Your task to perform on an android device: turn off airplane mode Image 0: 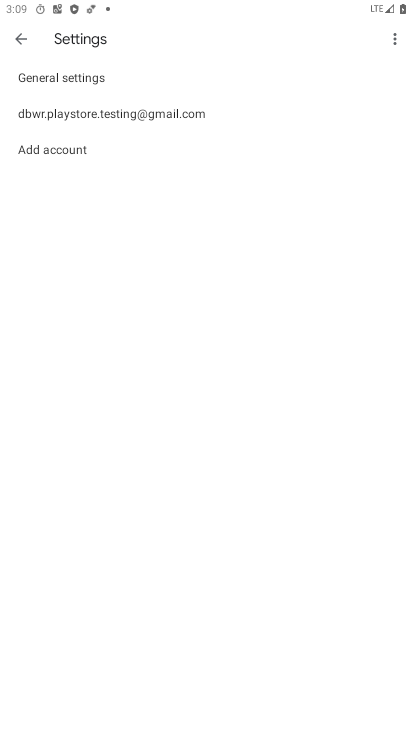
Step 0: press home button
Your task to perform on an android device: turn off airplane mode Image 1: 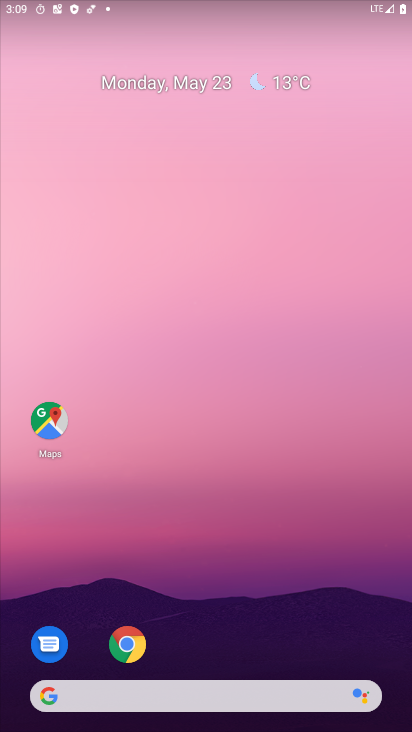
Step 1: drag from (220, 667) to (137, 127)
Your task to perform on an android device: turn off airplane mode Image 2: 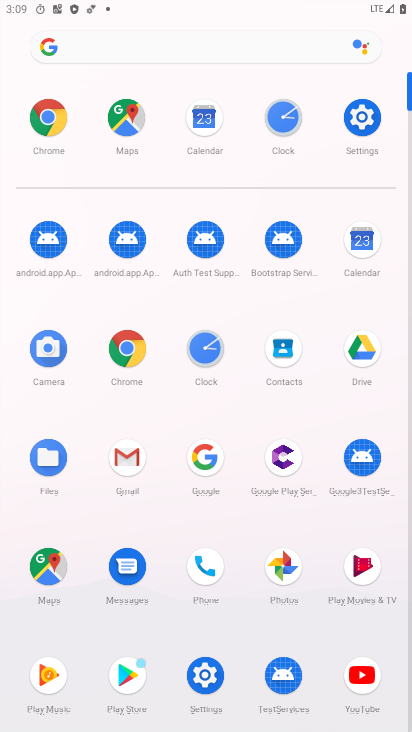
Step 2: click (207, 676)
Your task to perform on an android device: turn off airplane mode Image 3: 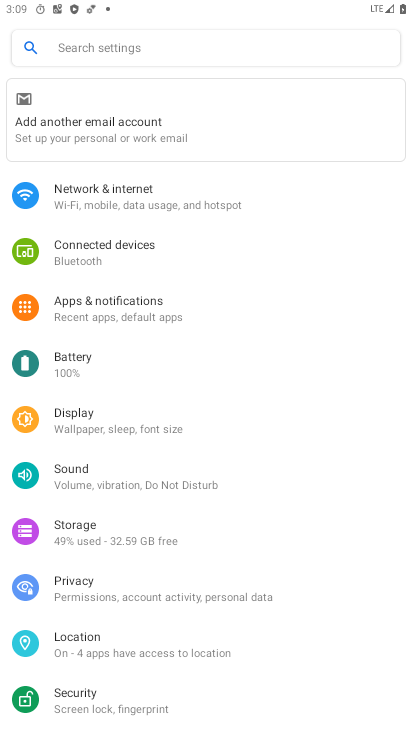
Step 3: click (121, 202)
Your task to perform on an android device: turn off airplane mode Image 4: 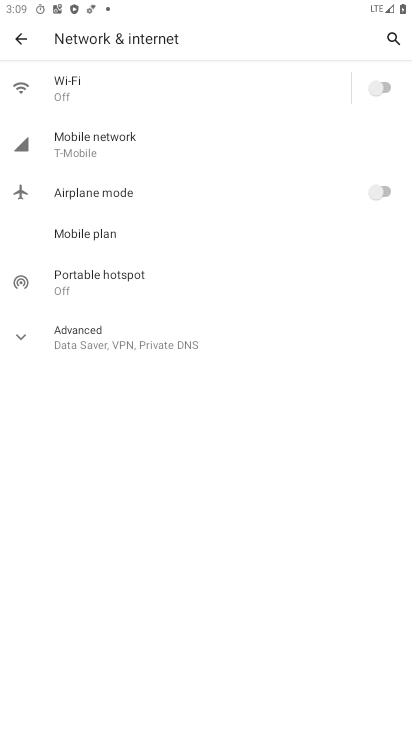
Step 4: task complete